Your task to perform on an android device: turn smart compose on in the gmail app Image 0: 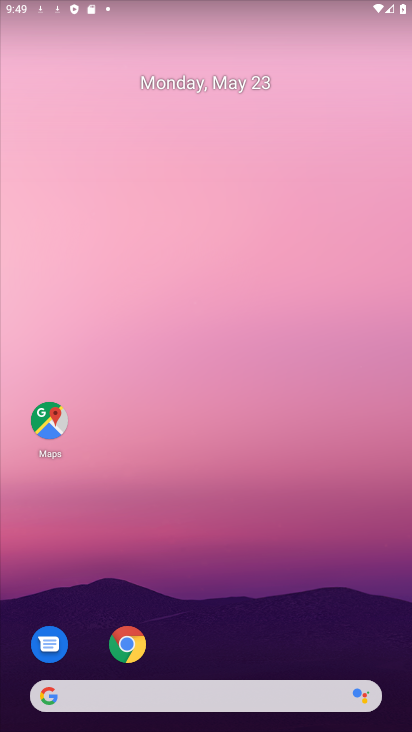
Step 0: drag from (297, 689) to (242, 156)
Your task to perform on an android device: turn smart compose on in the gmail app Image 1: 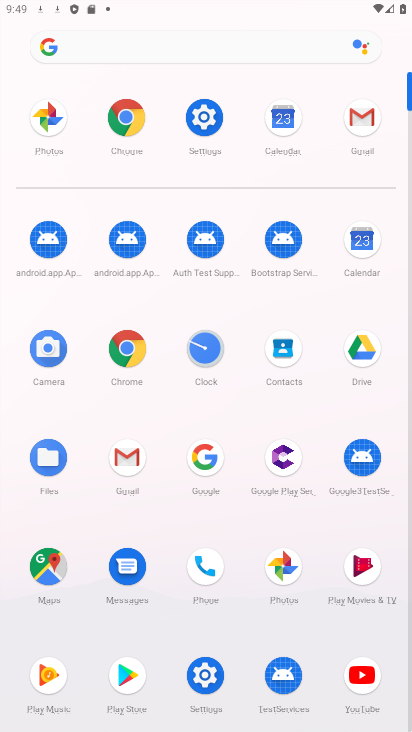
Step 1: click (142, 462)
Your task to perform on an android device: turn smart compose on in the gmail app Image 2: 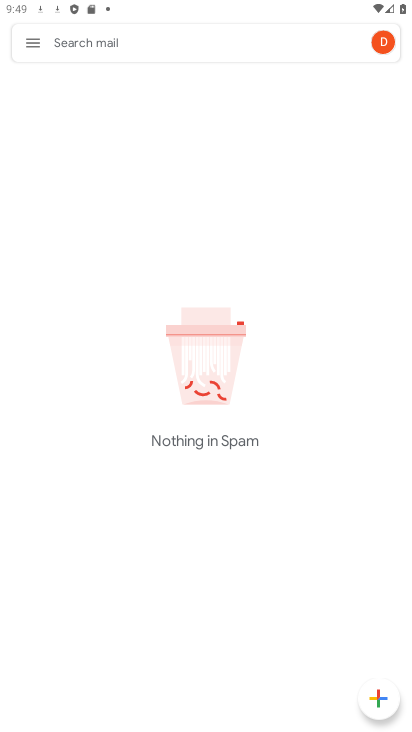
Step 2: click (38, 42)
Your task to perform on an android device: turn smart compose on in the gmail app Image 3: 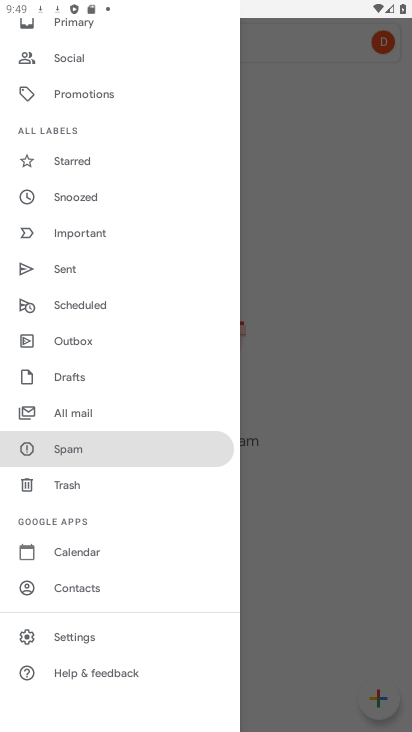
Step 3: click (63, 635)
Your task to perform on an android device: turn smart compose on in the gmail app Image 4: 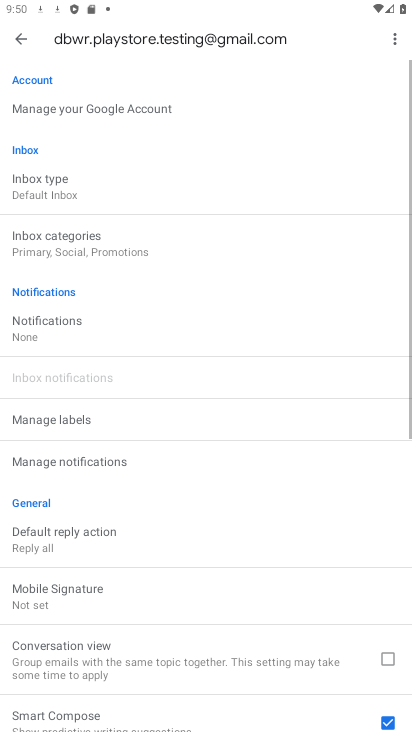
Step 4: drag from (148, 589) to (217, 169)
Your task to perform on an android device: turn smart compose on in the gmail app Image 5: 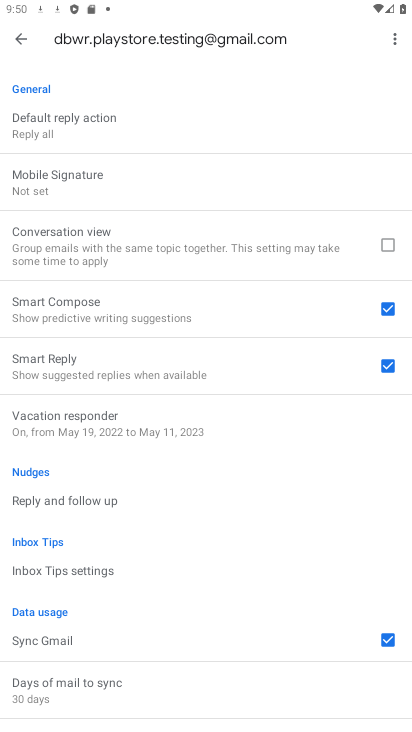
Step 5: drag from (241, 616) to (241, 270)
Your task to perform on an android device: turn smart compose on in the gmail app Image 6: 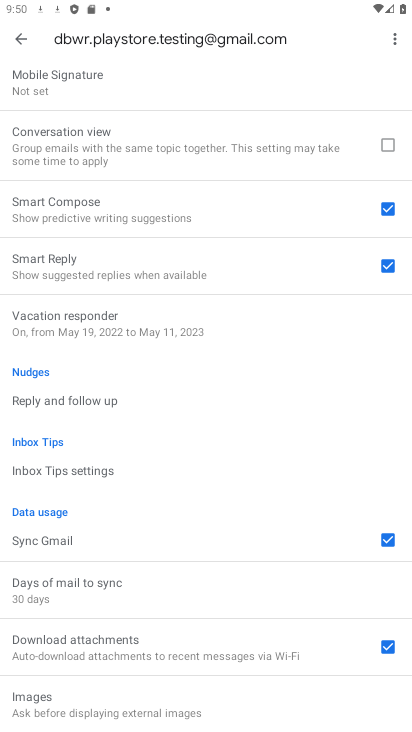
Step 6: drag from (237, 546) to (249, 323)
Your task to perform on an android device: turn smart compose on in the gmail app Image 7: 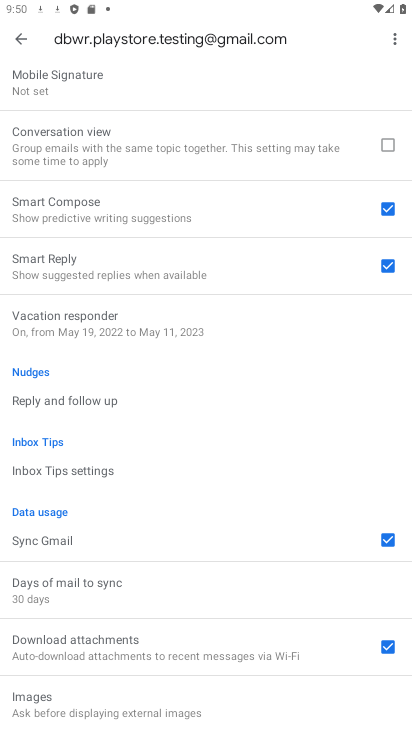
Step 7: click (382, 206)
Your task to perform on an android device: turn smart compose on in the gmail app Image 8: 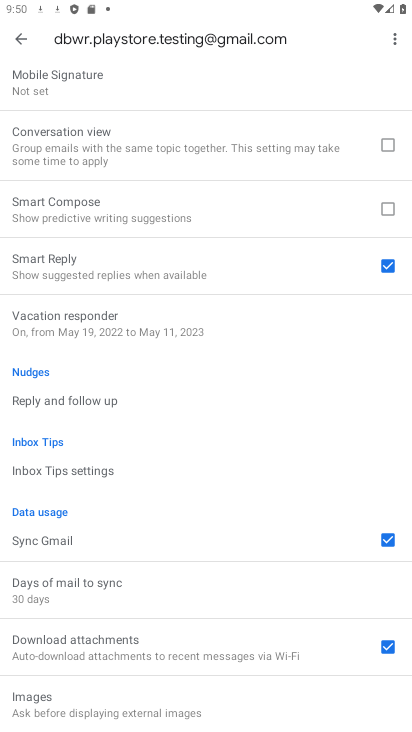
Step 8: click (382, 205)
Your task to perform on an android device: turn smart compose on in the gmail app Image 9: 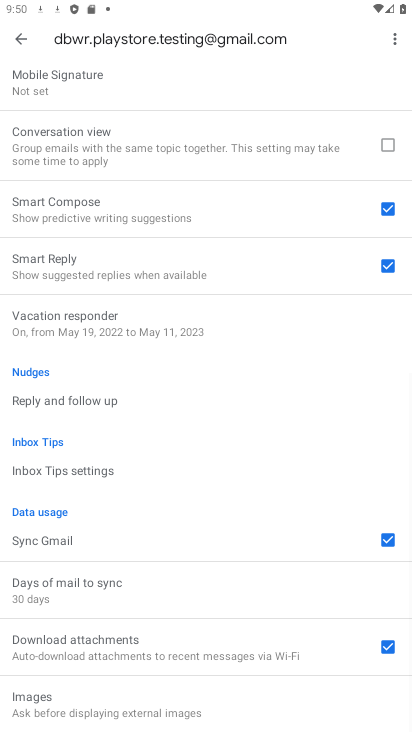
Step 9: task complete